Your task to perform on an android device: Go to wifi settings Image 0: 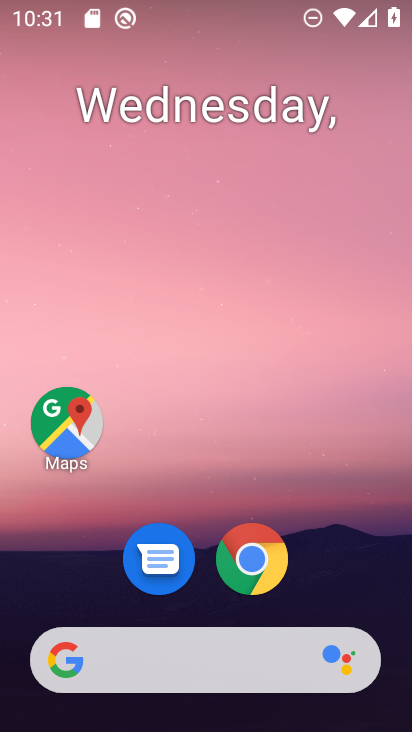
Step 0: drag from (379, 573) to (375, 211)
Your task to perform on an android device: Go to wifi settings Image 1: 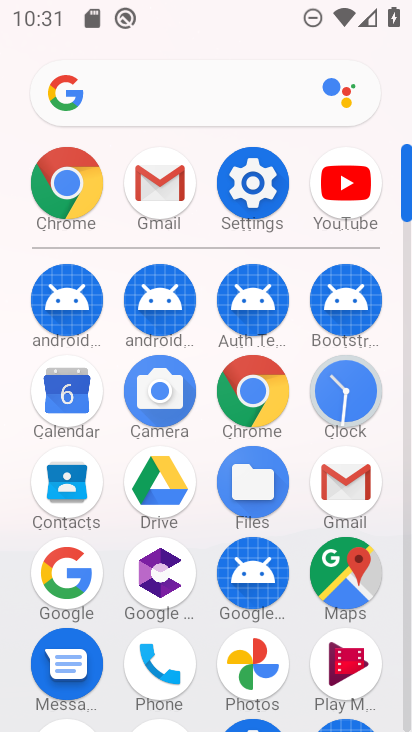
Step 1: click (264, 201)
Your task to perform on an android device: Go to wifi settings Image 2: 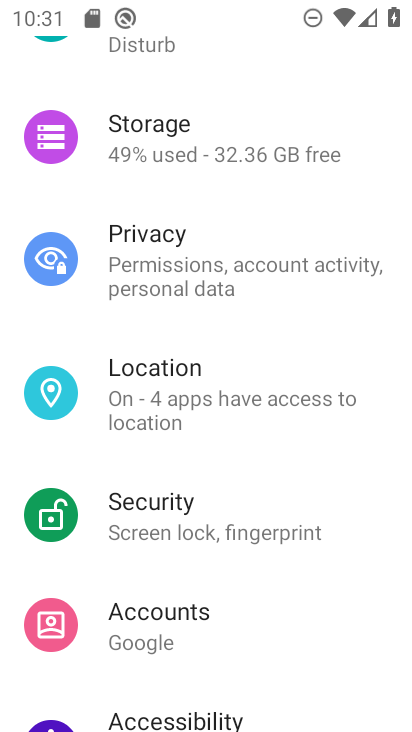
Step 2: drag from (337, 207) to (328, 328)
Your task to perform on an android device: Go to wifi settings Image 3: 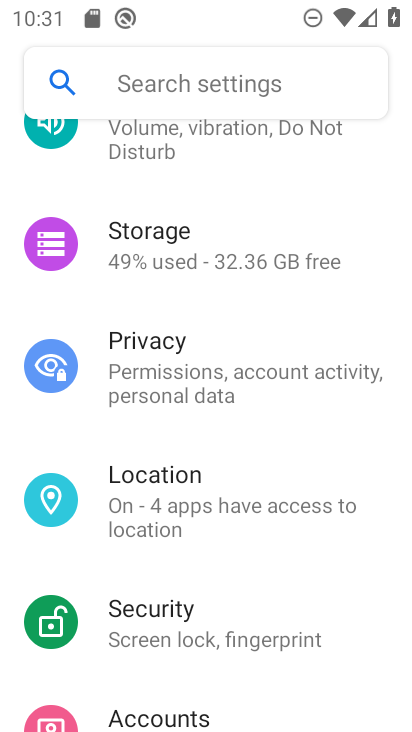
Step 3: drag from (348, 161) to (352, 282)
Your task to perform on an android device: Go to wifi settings Image 4: 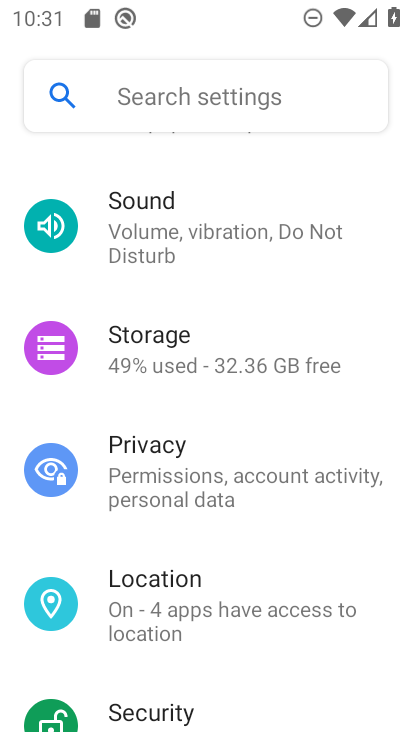
Step 4: drag from (350, 194) to (352, 331)
Your task to perform on an android device: Go to wifi settings Image 5: 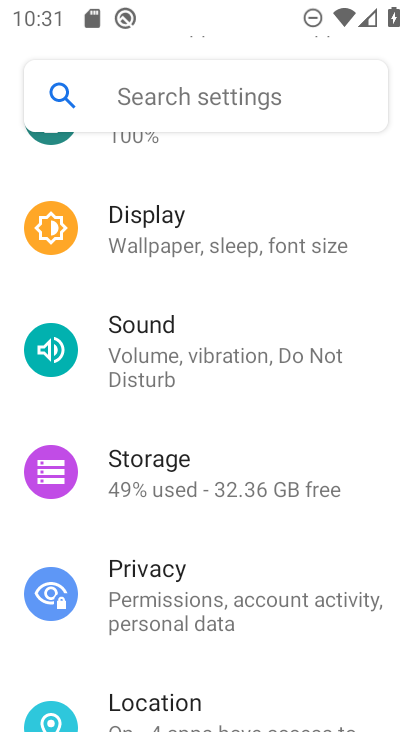
Step 5: drag from (348, 192) to (359, 308)
Your task to perform on an android device: Go to wifi settings Image 6: 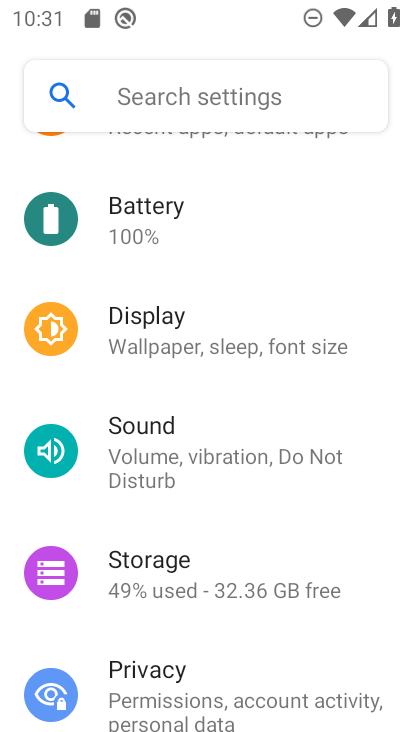
Step 6: drag from (355, 214) to (343, 338)
Your task to perform on an android device: Go to wifi settings Image 7: 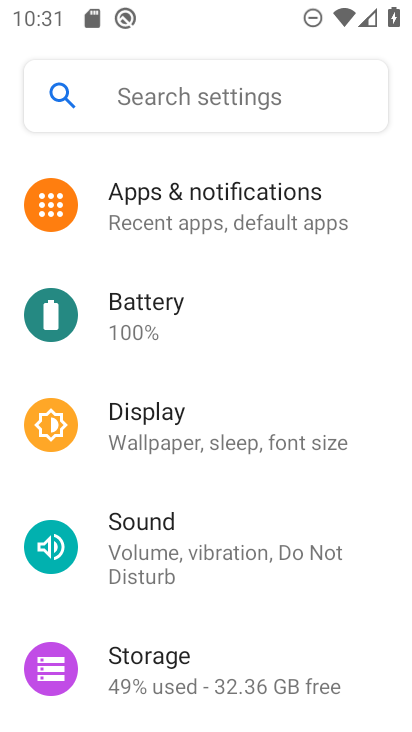
Step 7: drag from (359, 197) to (364, 325)
Your task to perform on an android device: Go to wifi settings Image 8: 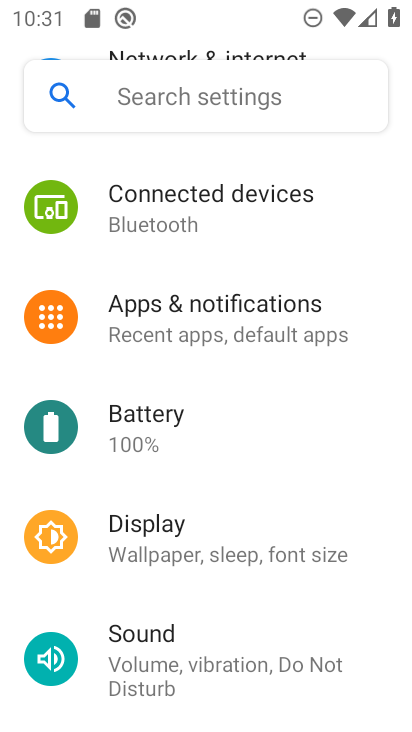
Step 8: drag from (363, 227) to (370, 357)
Your task to perform on an android device: Go to wifi settings Image 9: 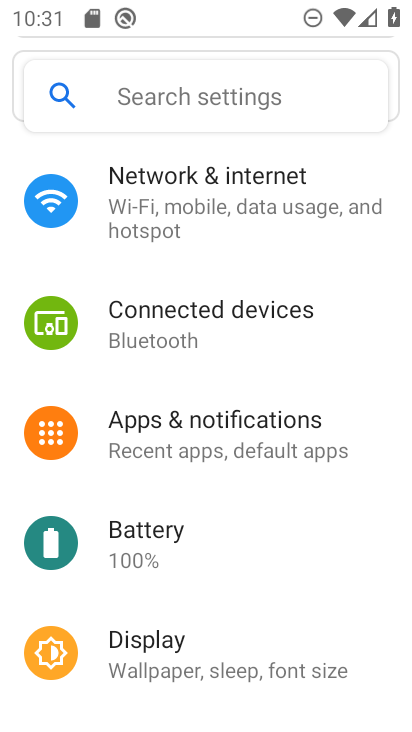
Step 9: drag from (350, 188) to (352, 322)
Your task to perform on an android device: Go to wifi settings Image 10: 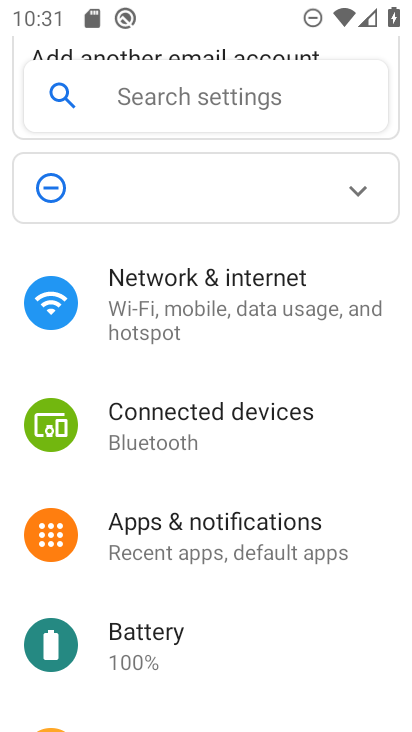
Step 10: click (287, 314)
Your task to perform on an android device: Go to wifi settings Image 11: 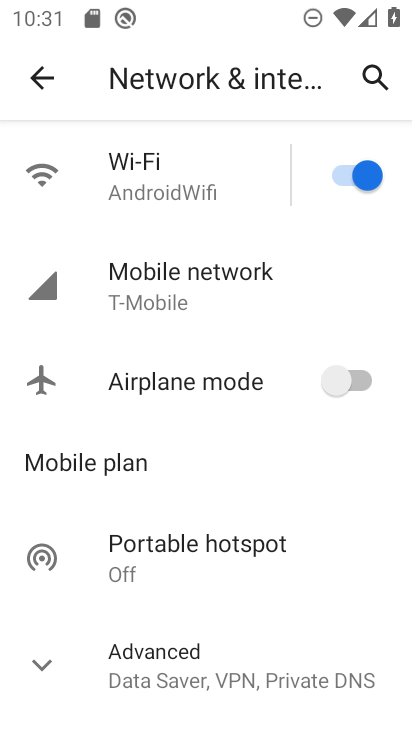
Step 11: click (173, 181)
Your task to perform on an android device: Go to wifi settings Image 12: 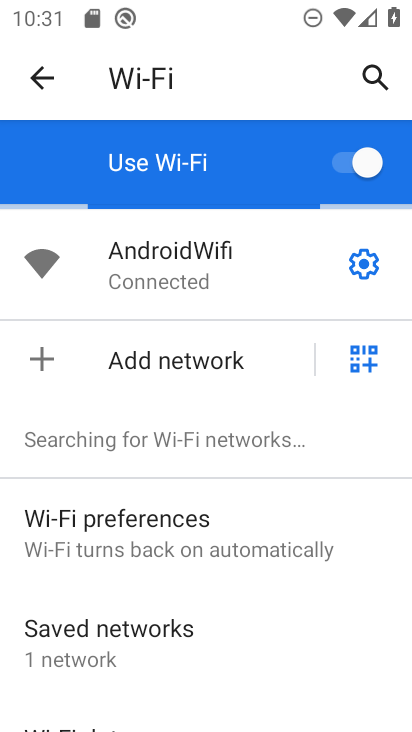
Step 12: task complete